Your task to perform on an android device: Is it going to rain today? Image 0: 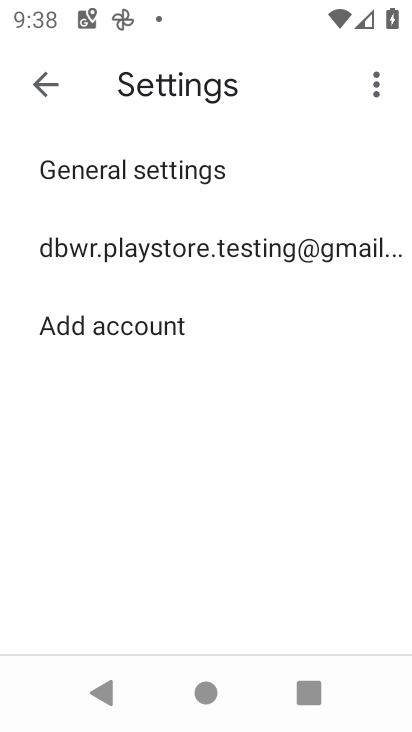
Step 0: press home button
Your task to perform on an android device: Is it going to rain today? Image 1: 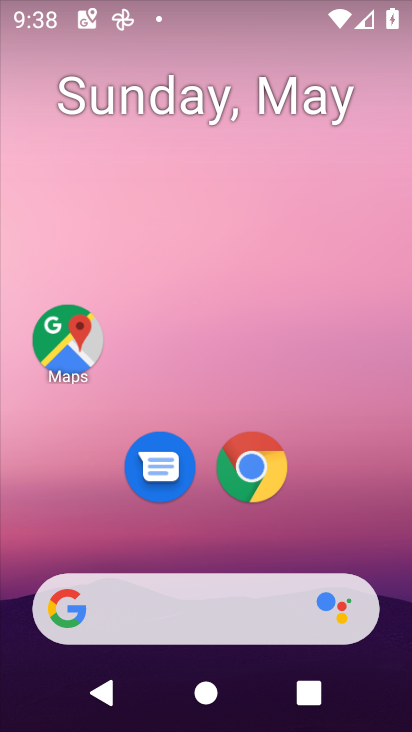
Step 1: click (255, 465)
Your task to perform on an android device: Is it going to rain today? Image 2: 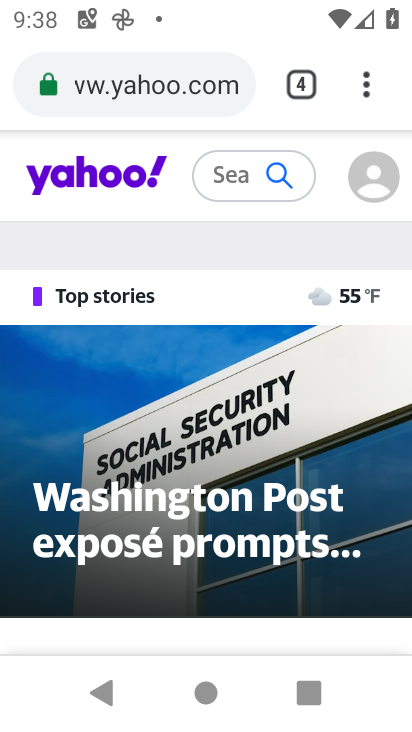
Step 2: click (175, 96)
Your task to perform on an android device: Is it going to rain today? Image 3: 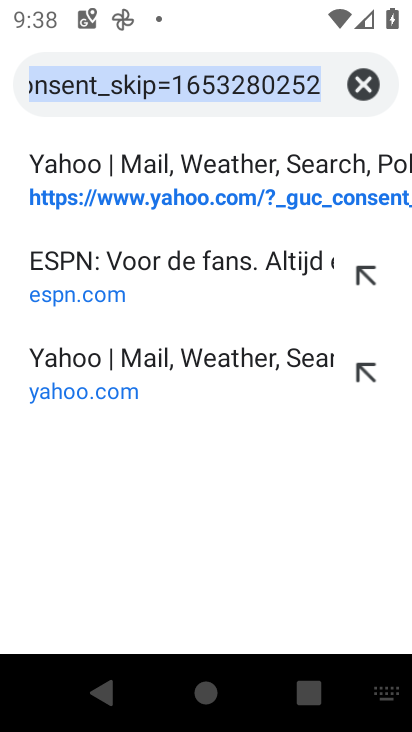
Step 3: click (347, 84)
Your task to perform on an android device: Is it going to rain today? Image 4: 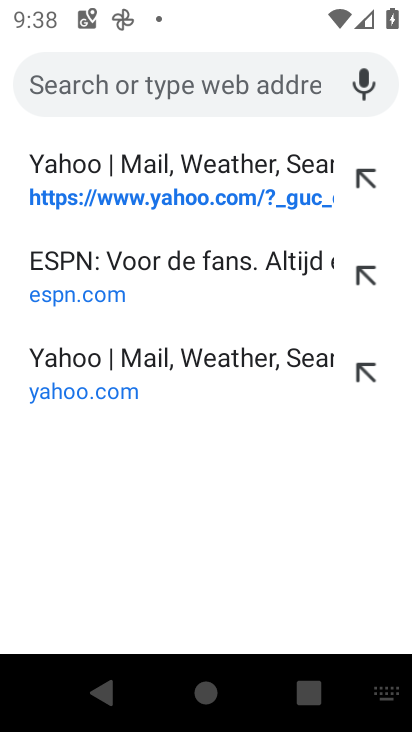
Step 4: type "is it going to rain today"
Your task to perform on an android device: Is it going to rain today? Image 5: 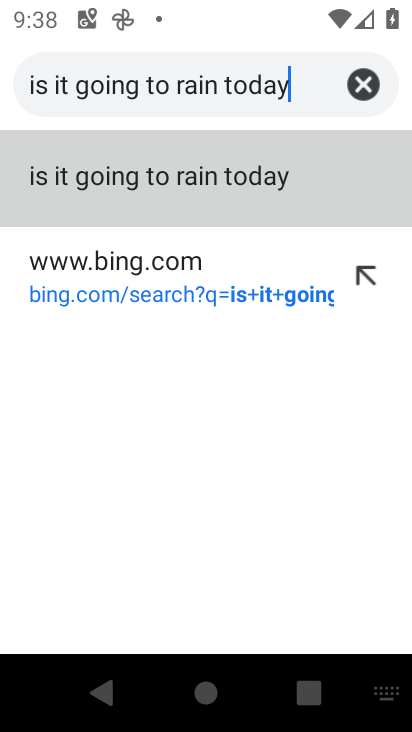
Step 5: click (175, 171)
Your task to perform on an android device: Is it going to rain today? Image 6: 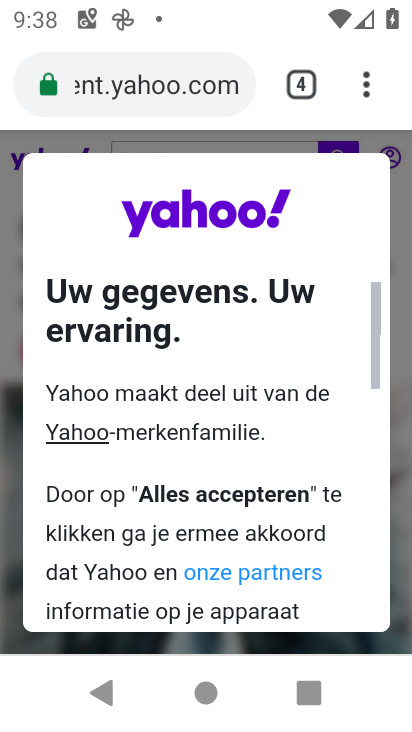
Step 6: drag from (274, 562) to (270, 174)
Your task to perform on an android device: Is it going to rain today? Image 7: 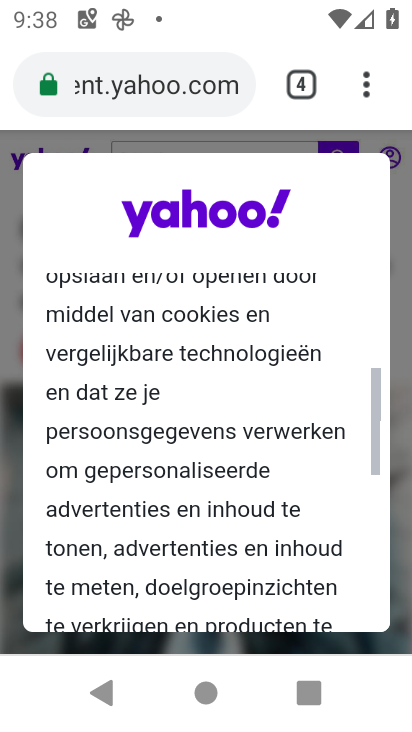
Step 7: drag from (260, 521) to (220, 231)
Your task to perform on an android device: Is it going to rain today? Image 8: 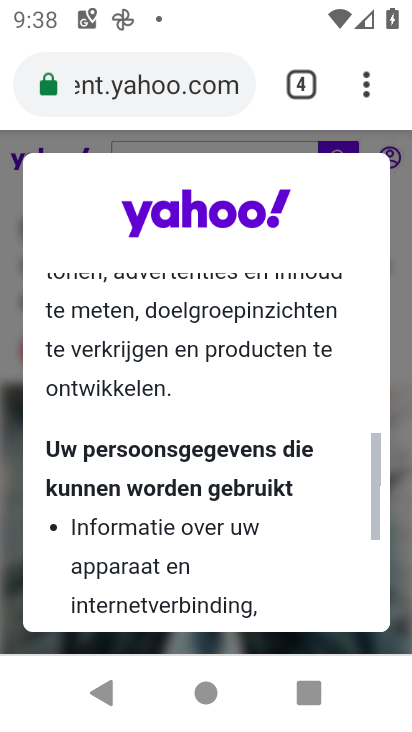
Step 8: drag from (202, 465) to (202, 280)
Your task to perform on an android device: Is it going to rain today? Image 9: 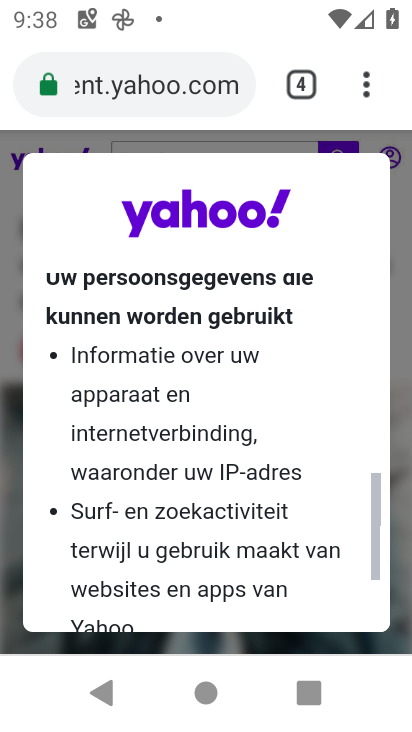
Step 9: drag from (201, 579) to (206, 343)
Your task to perform on an android device: Is it going to rain today? Image 10: 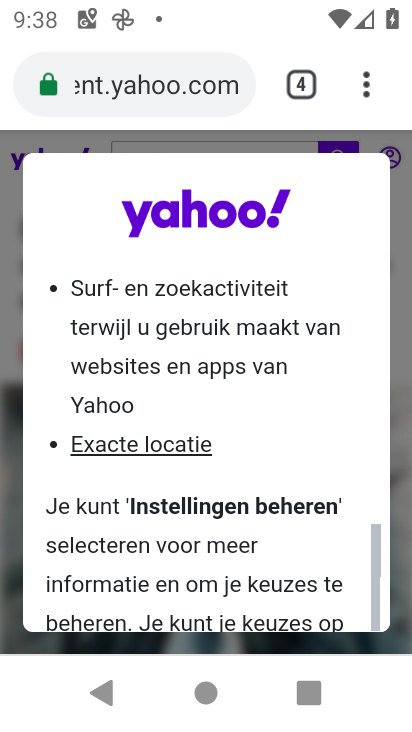
Step 10: click (218, 342)
Your task to perform on an android device: Is it going to rain today? Image 11: 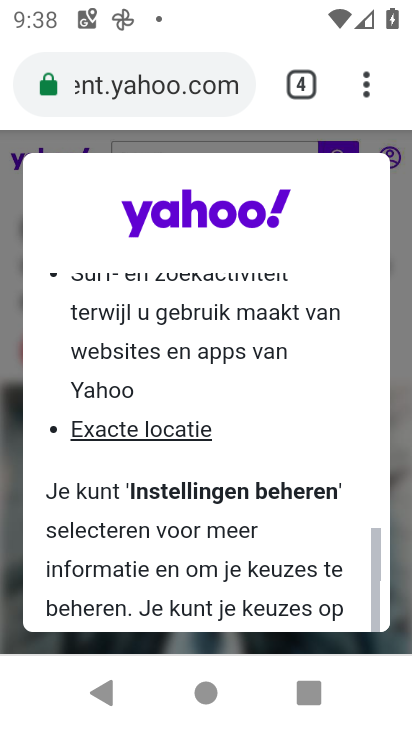
Step 11: drag from (281, 577) to (268, 311)
Your task to perform on an android device: Is it going to rain today? Image 12: 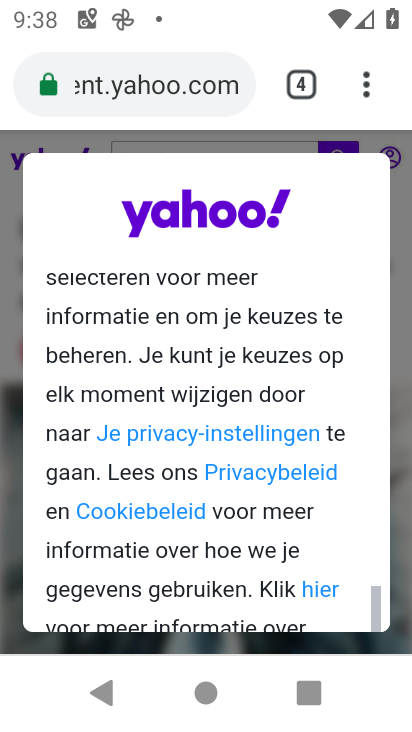
Step 12: drag from (245, 586) to (285, 132)
Your task to perform on an android device: Is it going to rain today? Image 13: 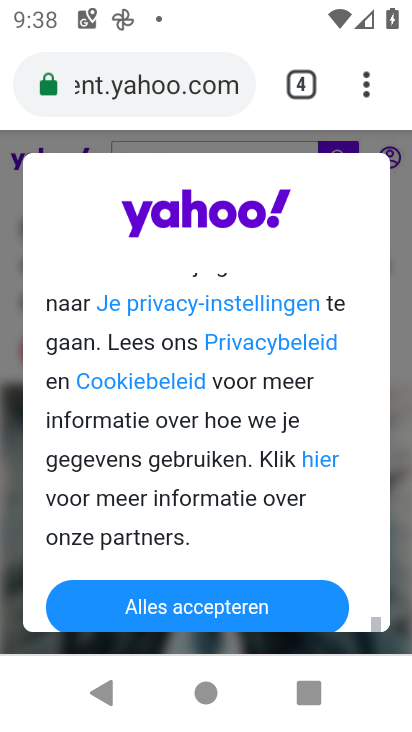
Step 13: click (218, 593)
Your task to perform on an android device: Is it going to rain today? Image 14: 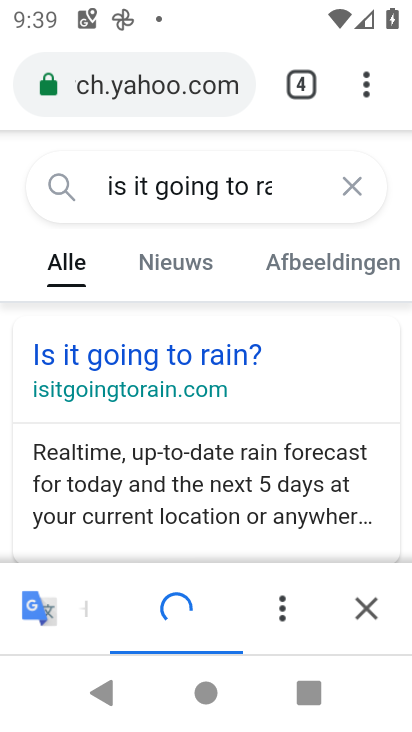
Step 14: task complete